Your task to perform on an android device: Clear the cart on amazon.com. Search for apple airpods on amazon.com, select the first entry, and add it to the cart. Image 0: 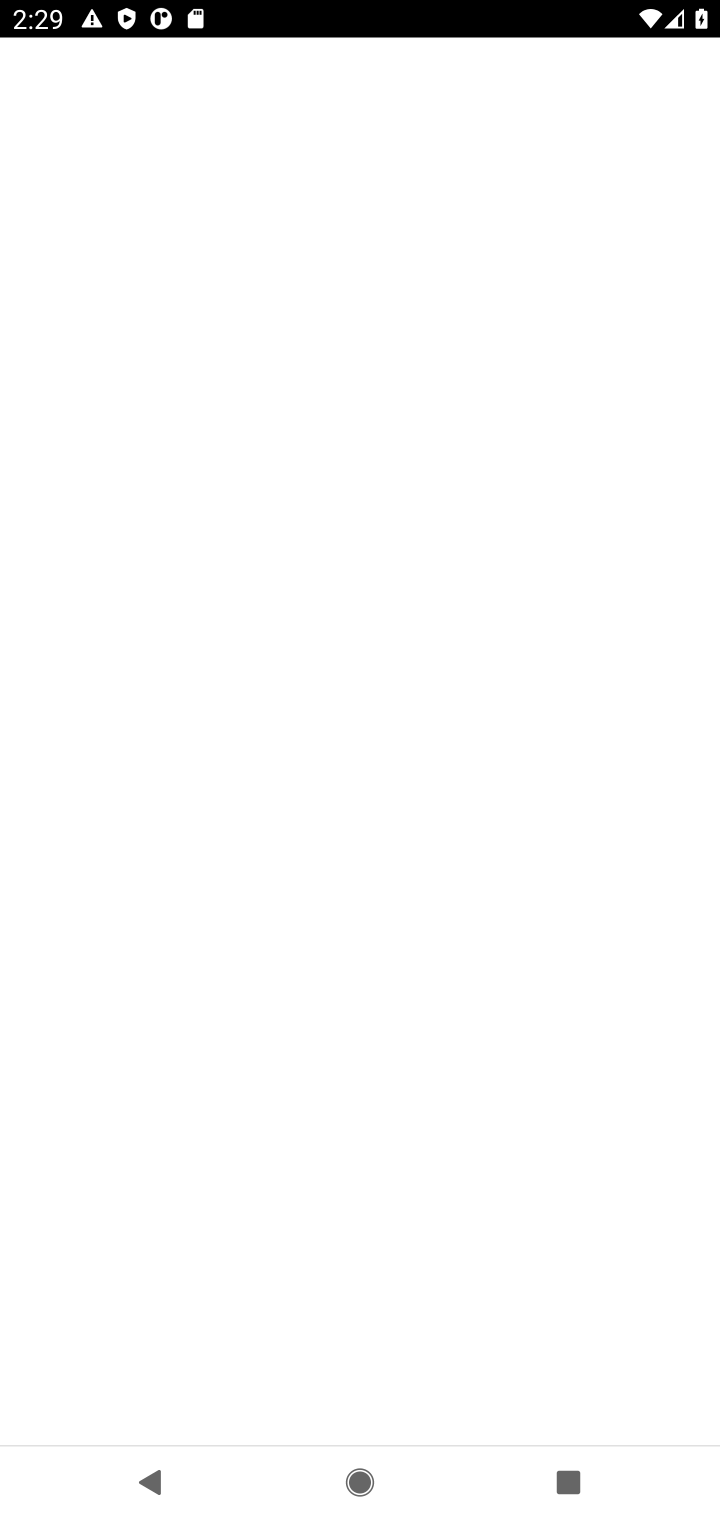
Step 0: press home button
Your task to perform on an android device: Clear the cart on amazon.com. Search for apple airpods on amazon.com, select the first entry, and add it to the cart. Image 1: 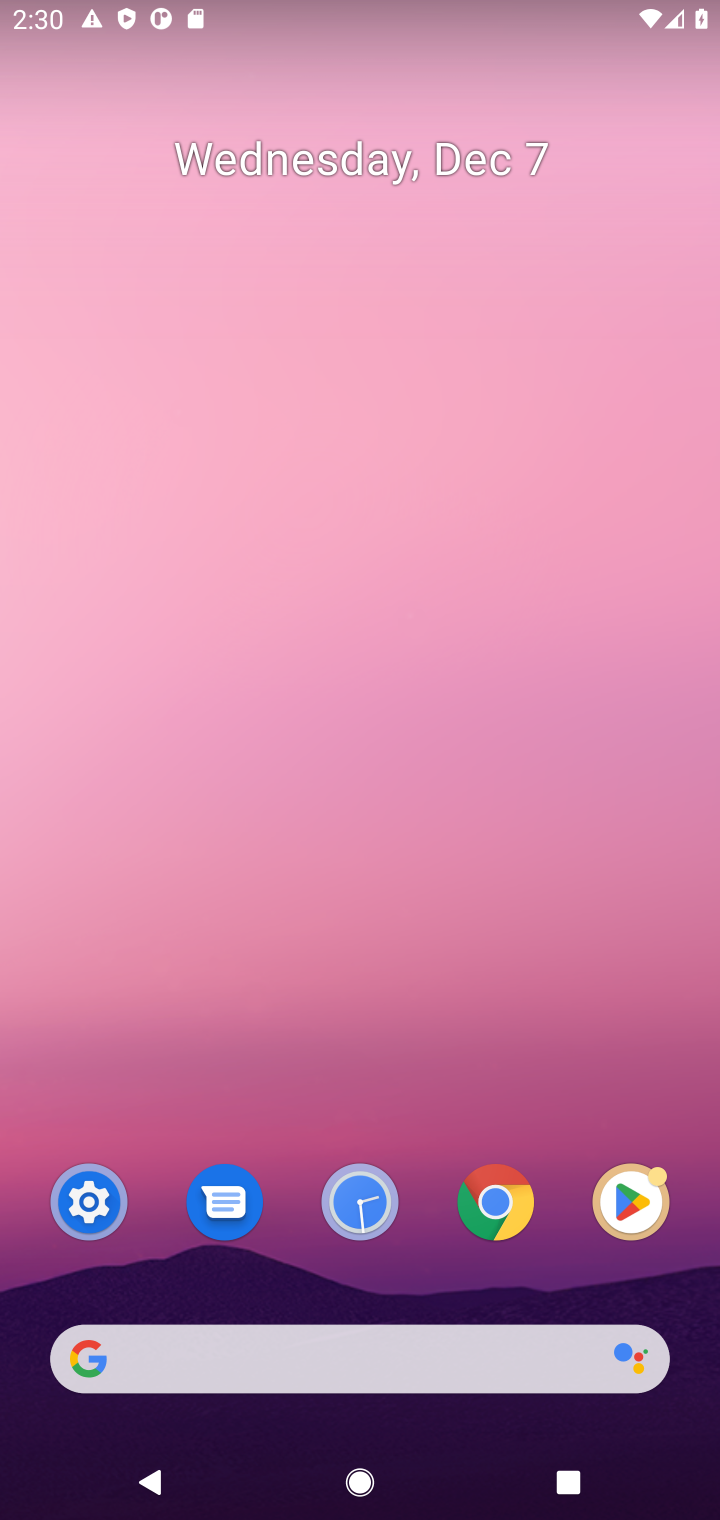
Step 1: click (488, 1204)
Your task to perform on an android device: Clear the cart on amazon.com. Search for apple airpods on amazon.com, select the first entry, and add it to the cart. Image 2: 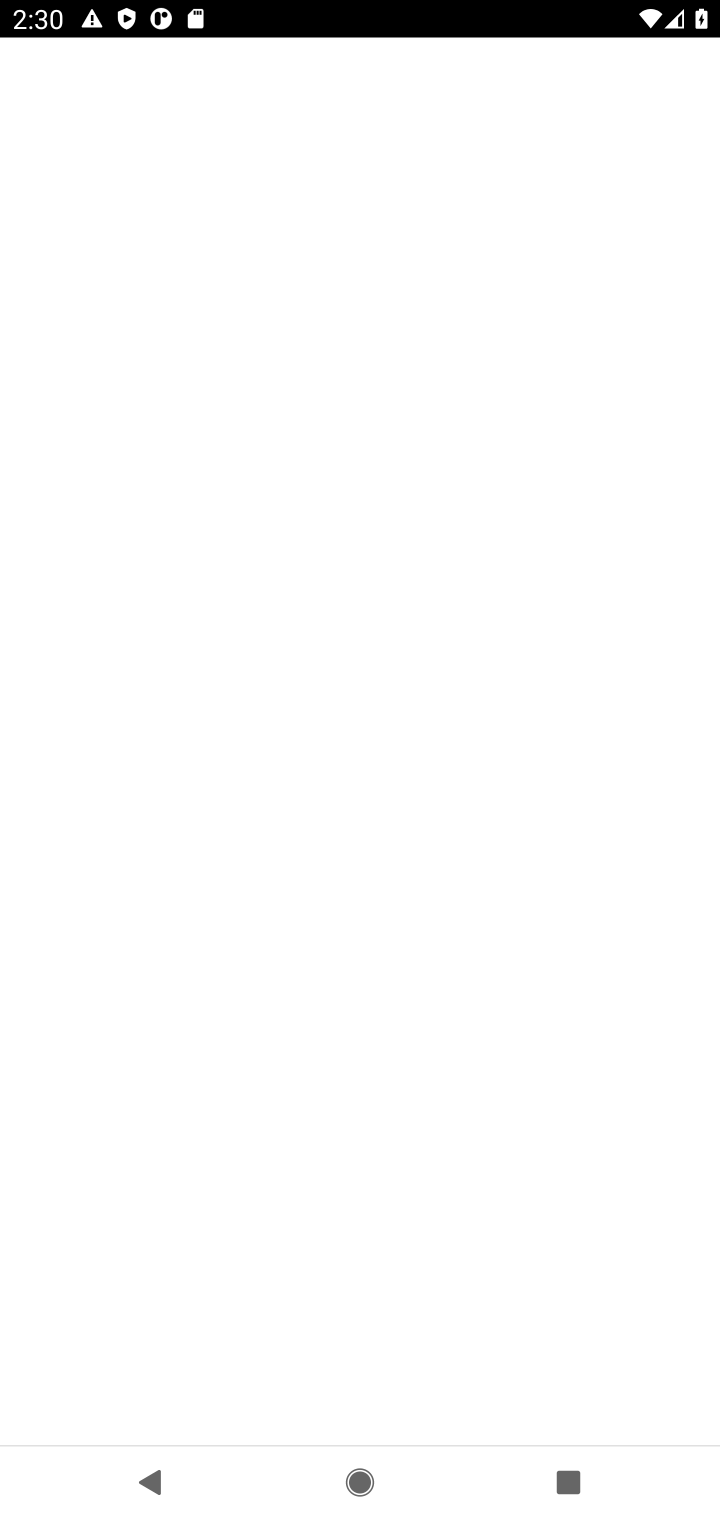
Step 2: task complete